Your task to perform on an android device: Show the shopping cart on target.com. Search for dell alienware on target.com, select the first entry, add it to the cart, then select checkout. Image 0: 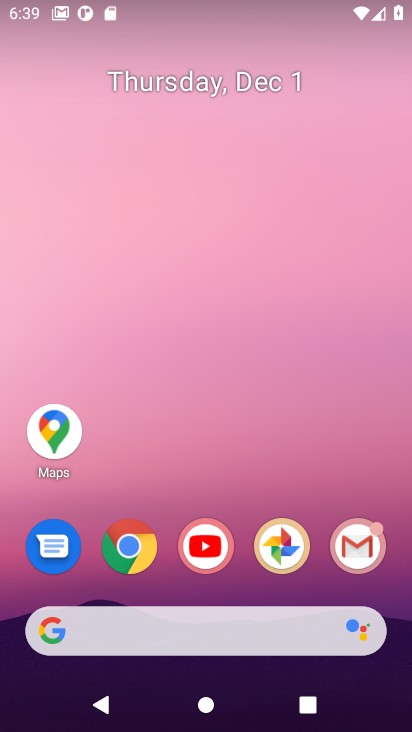
Step 0: click (131, 544)
Your task to perform on an android device: Show the shopping cart on target.com. Search for dell alienware on target.com, select the first entry, add it to the cart, then select checkout. Image 1: 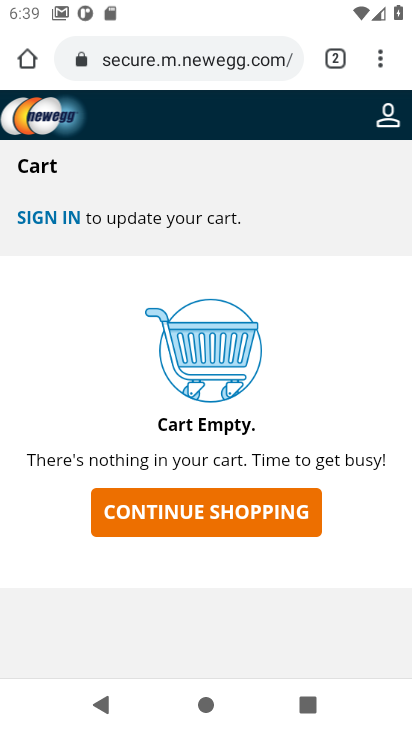
Step 1: click (187, 60)
Your task to perform on an android device: Show the shopping cart on target.com. Search for dell alienware on target.com, select the first entry, add it to the cart, then select checkout. Image 2: 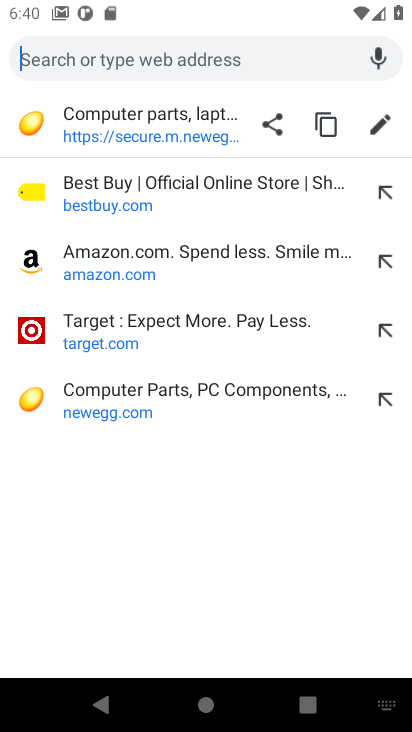
Step 2: click (104, 337)
Your task to perform on an android device: Show the shopping cart on target.com. Search for dell alienware on target.com, select the first entry, add it to the cart, then select checkout. Image 3: 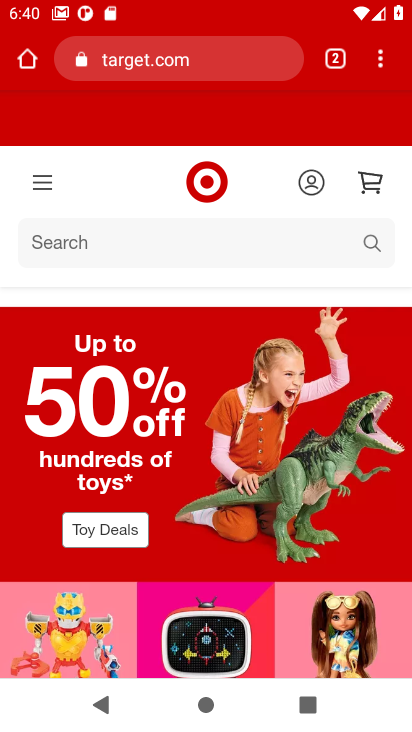
Step 3: click (370, 184)
Your task to perform on an android device: Show the shopping cart on target.com. Search for dell alienware on target.com, select the first entry, add it to the cart, then select checkout. Image 4: 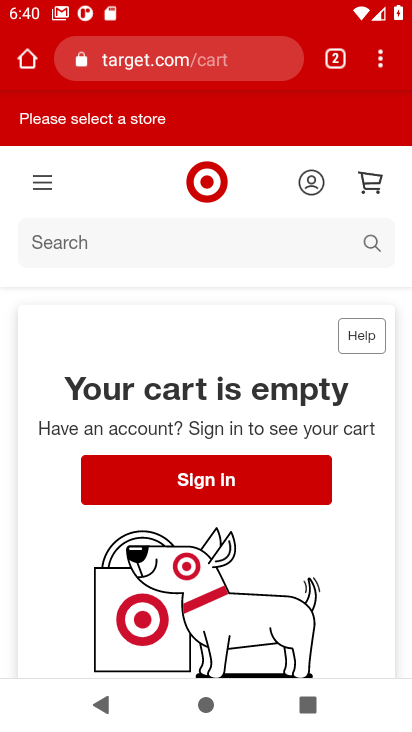
Step 4: click (83, 240)
Your task to perform on an android device: Show the shopping cart on target.com. Search for dell alienware on target.com, select the first entry, add it to the cart, then select checkout. Image 5: 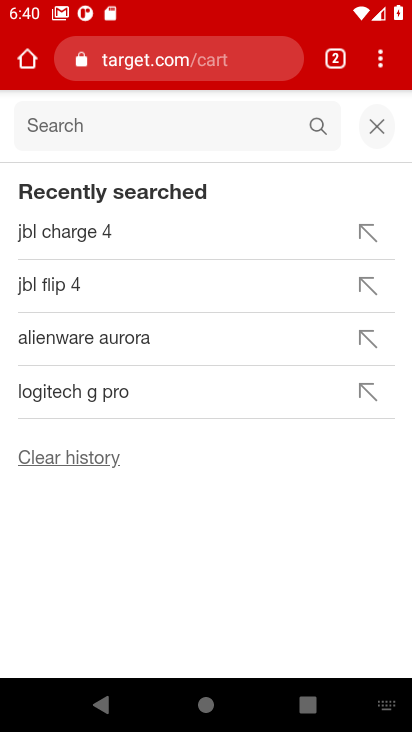
Step 5: type " dell alienware"
Your task to perform on an android device: Show the shopping cart on target.com. Search for dell alienware on target.com, select the first entry, add it to the cart, then select checkout. Image 6: 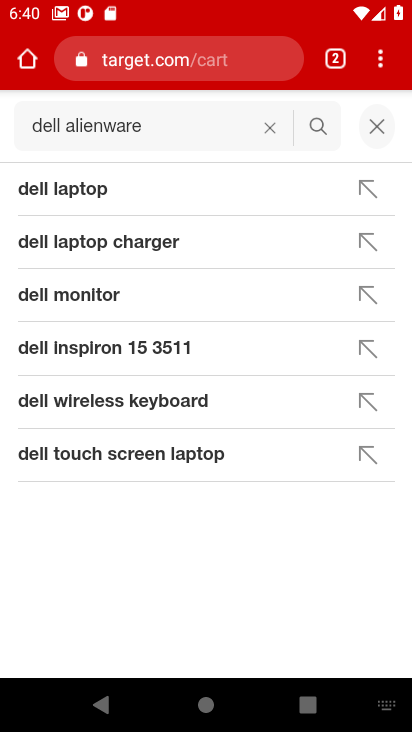
Step 6: click (323, 125)
Your task to perform on an android device: Show the shopping cart on target.com. Search for dell alienware on target.com, select the first entry, add it to the cart, then select checkout. Image 7: 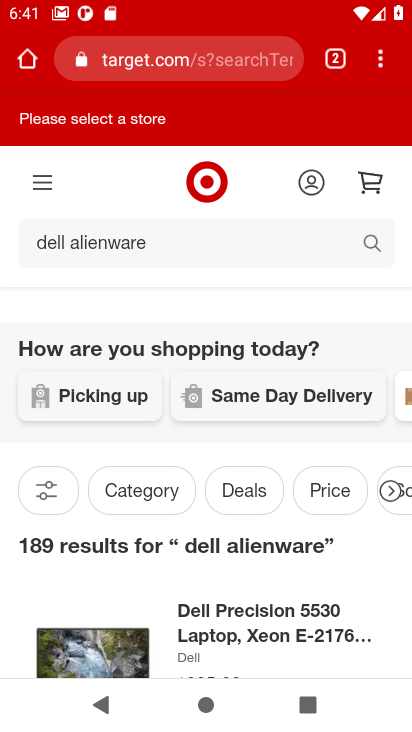
Step 7: task complete